Your task to perform on an android device: Open the stopwatch Image 0: 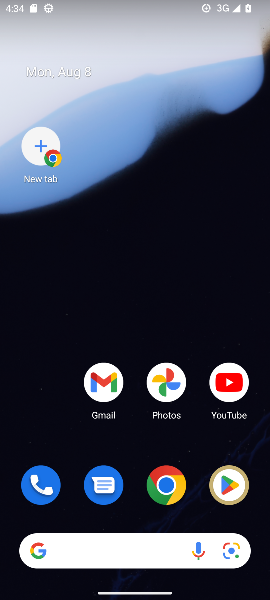
Step 0: drag from (98, 568) to (72, 28)
Your task to perform on an android device: Open the stopwatch Image 1: 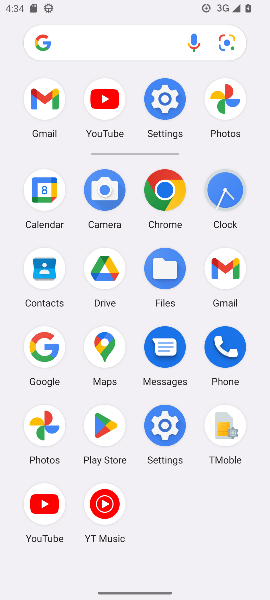
Step 1: click (221, 183)
Your task to perform on an android device: Open the stopwatch Image 2: 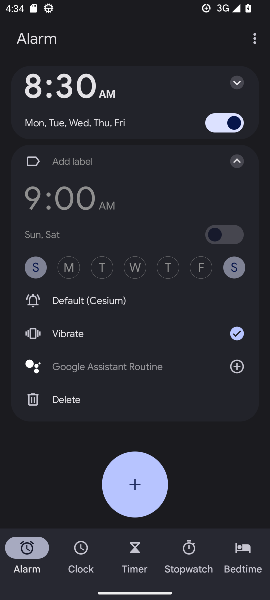
Step 2: click (195, 559)
Your task to perform on an android device: Open the stopwatch Image 3: 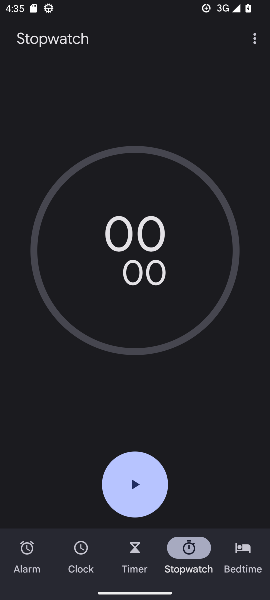
Step 3: task complete